Your task to perform on an android device: Open Google Maps and go to "Timeline" Image 0: 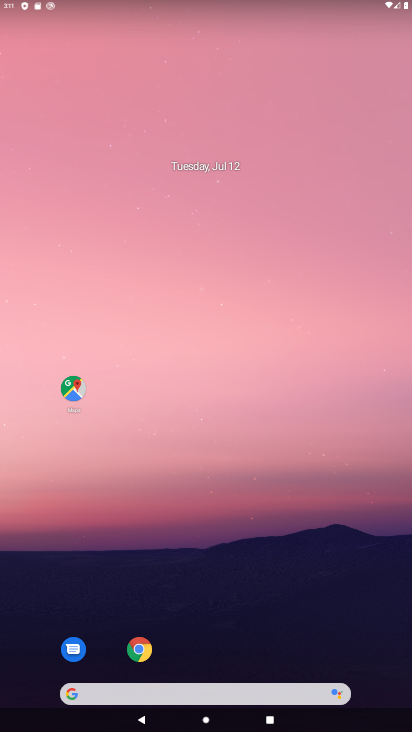
Step 0: drag from (192, 690) to (212, 345)
Your task to perform on an android device: Open Google Maps and go to "Timeline" Image 1: 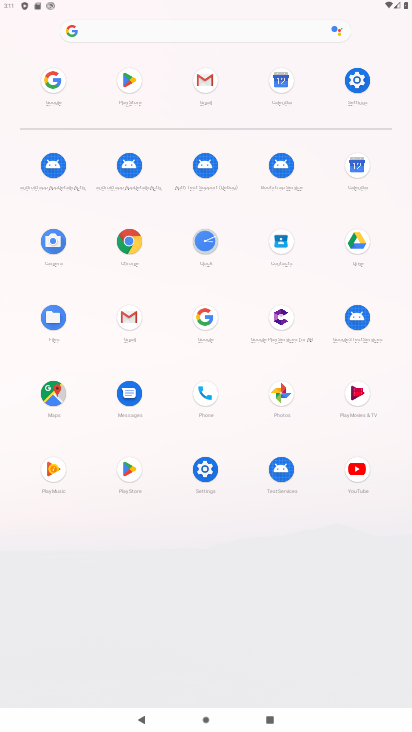
Step 1: click (67, 389)
Your task to perform on an android device: Open Google Maps and go to "Timeline" Image 2: 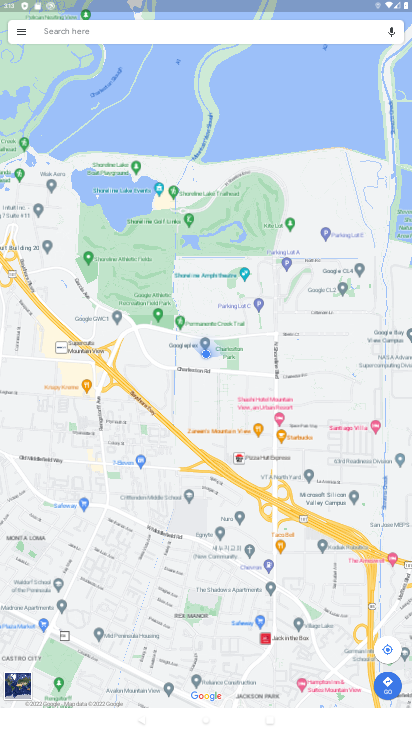
Step 2: click (16, 31)
Your task to perform on an android device: Open Google Maps and go to "Timeline" Image 3: 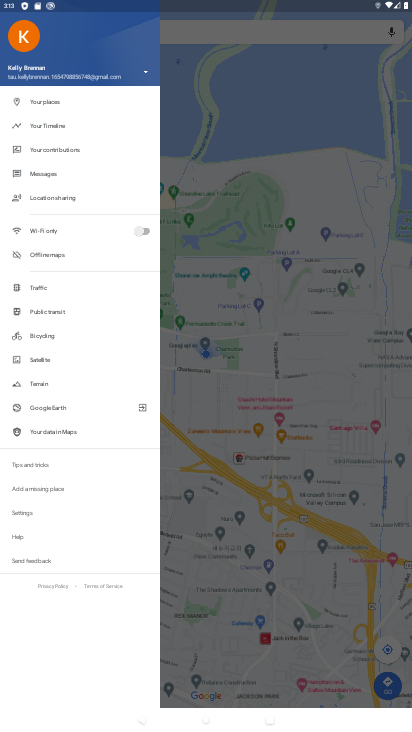
Step 3: click (39, 120)
Your task to perform on an android device: Open Google Maps and go to "Timeline" Image 4: 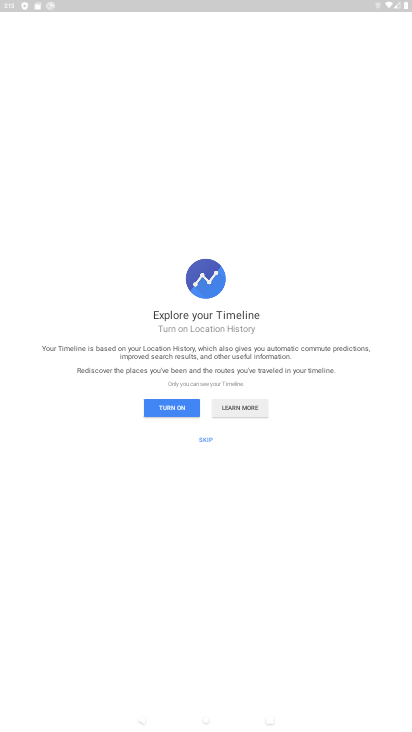
Step 4: click (225, 408)
Your task to perform on an android device: Open Google Maps and go to "Timeline" Image 5: 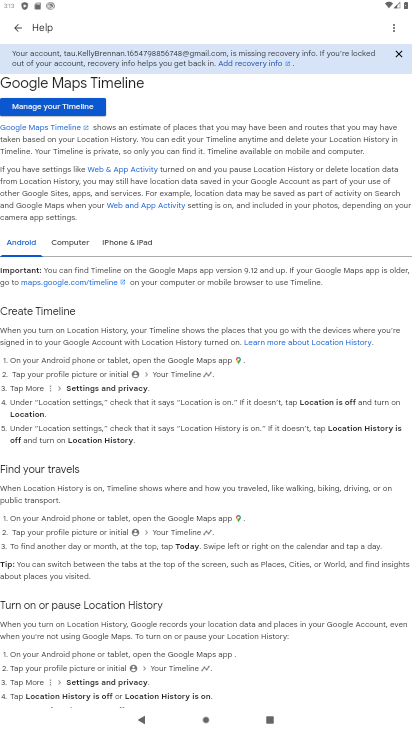
Step 5: click (13, 32)
Your task to perform on an android device: Open Google Maps and go to "Timeline" Image 6: 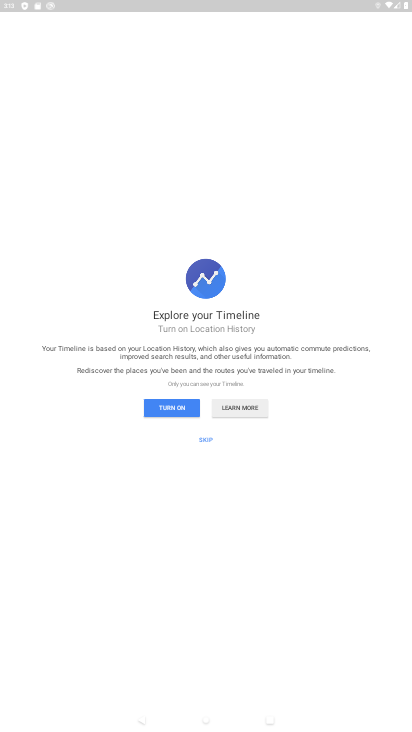
Step 6: click (160, 409)
Your task to perform on an android device: Open Google Maps and go to "Timeline" Image 7: 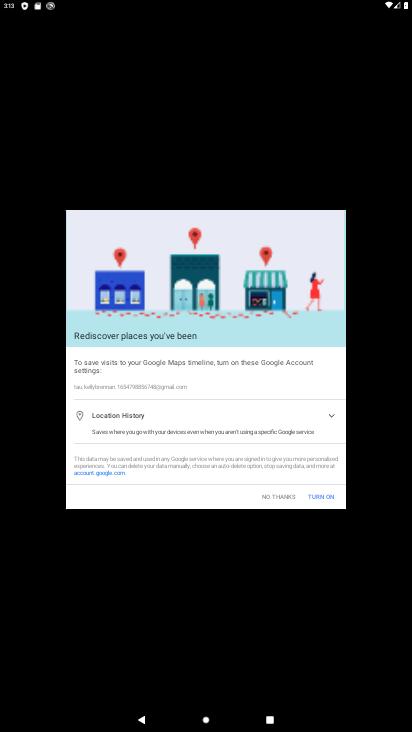
Step 7: task complete